Your task to perform on an android device: Open calendar and show me the third week of next month Image 0: 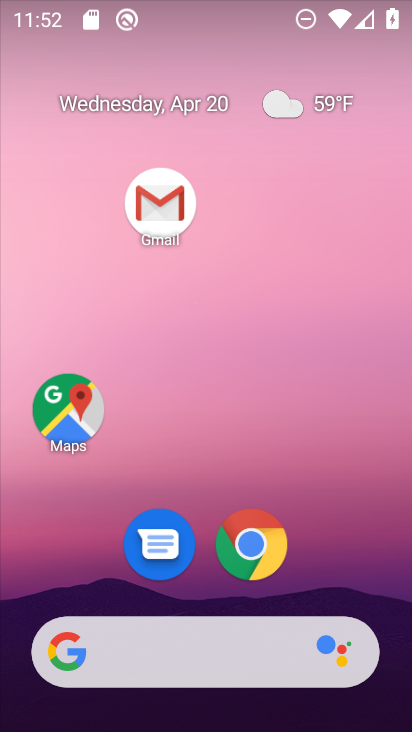
Step 0: drag from (202, 509) to (238, 47)
Your task to perform on an android device: Open calendar and show me the third week of next month Image 1: 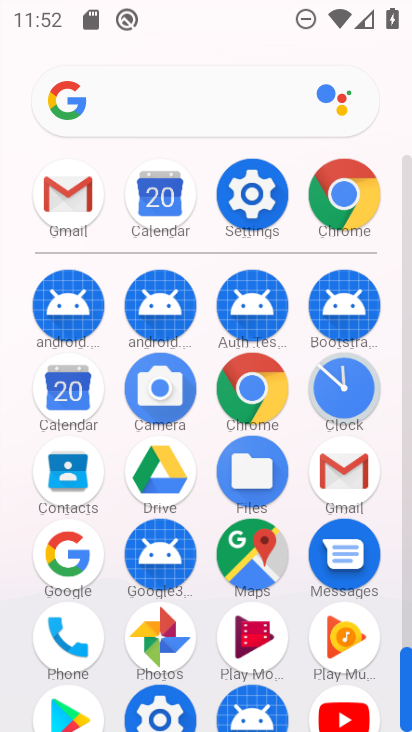
Step 1: click (152, 205)
Your task to perform on an android device: Open calendar and show me the third week of next month Image 2: 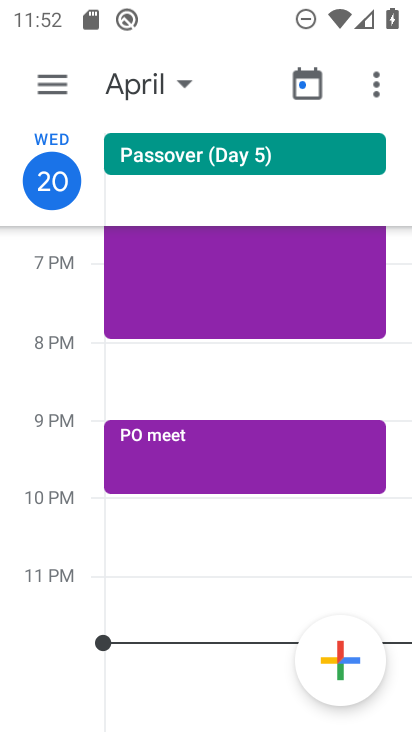
Step 2: click (155, 81)
Your task to perform on an android device: Open calendar and show me the third week of next month Image 3: 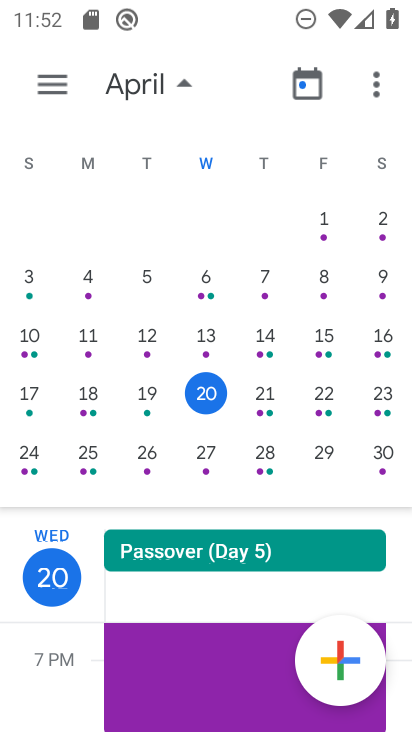
Step 3: drag from (371, 373) to (13, 147)
Your task to perform on an android device: Open calendar and show me the third week of next month Image 4: 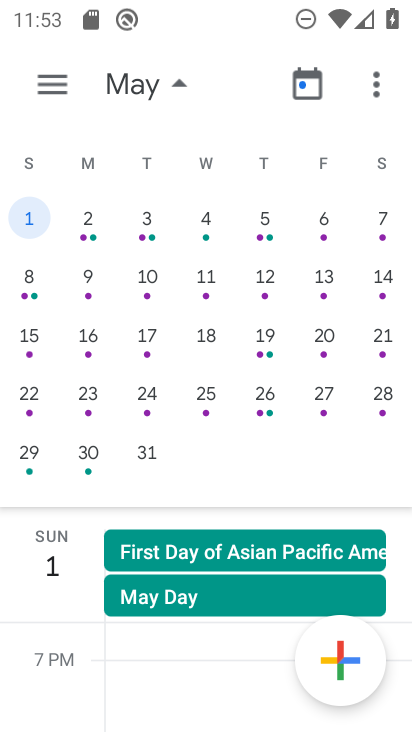
Step 4: click (59, 80)
Your task to perform on an android device: Open calendar and show me the third week of next month Image 5: 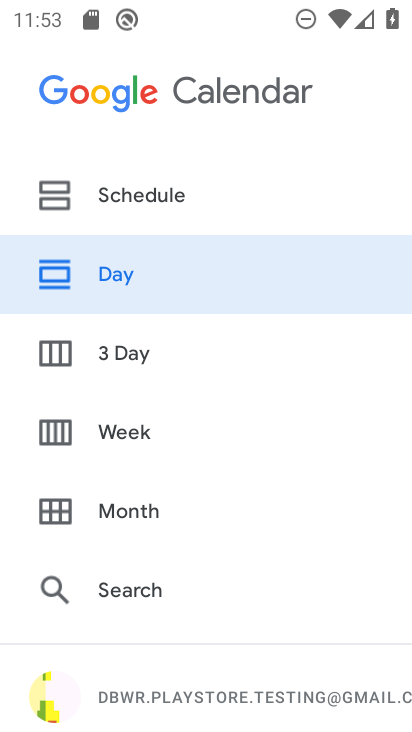
Step 5: click (147, 428)
Your task to perform on an android device: Open calendar and show me the third week of next month Image 6: 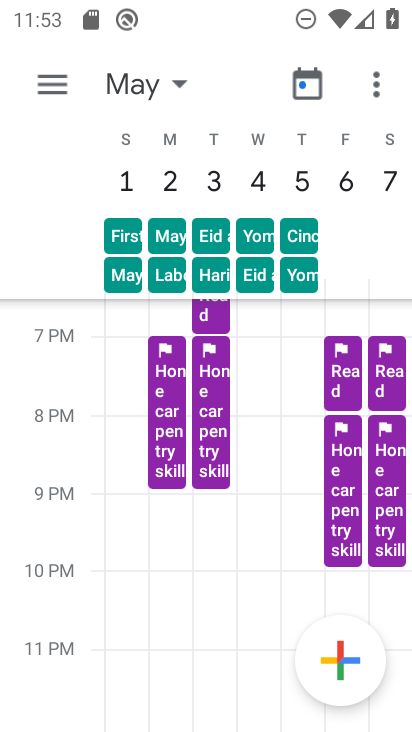
Step 6: task complete